Your task to perform on an android device: turn on improve location accuracy Image 0: 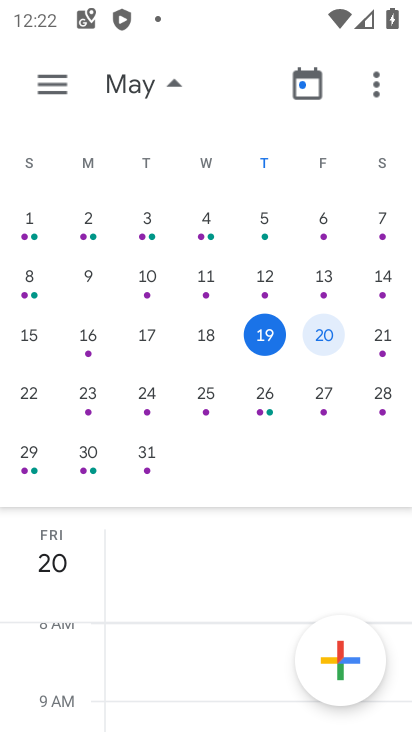
Step 0: press home button
Your task to perform on an android device: turn on improve location accuracy Image 1: 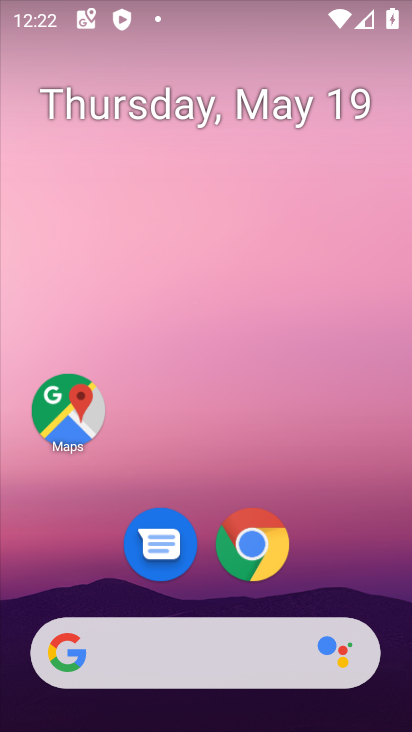
Step 1: drag from (325, 660) to (330, 228)
Your task to perform on an android device: turn on improve location accuracy Image 2: 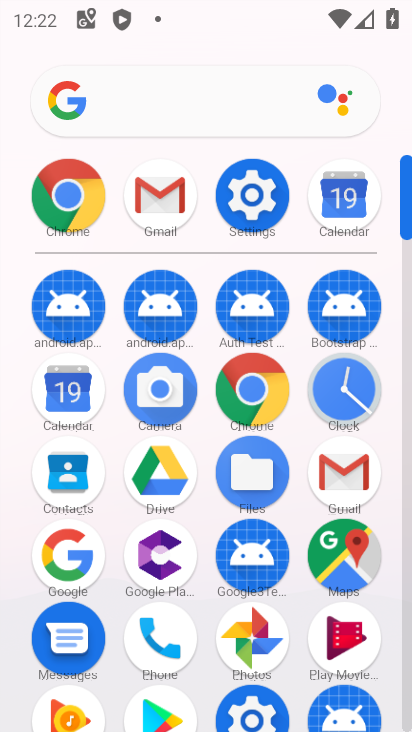
Step 2: click (248, 207)
Your task to perform on an android device: turn on improve location accuracy Image 3: 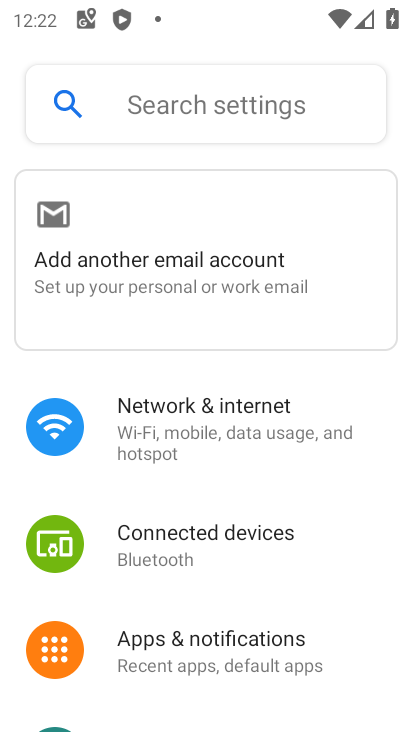
Step 3: drag from (247, 681) to (226, 214)
Your task to perform on an android device: turn on improve location accuracy Image 4: 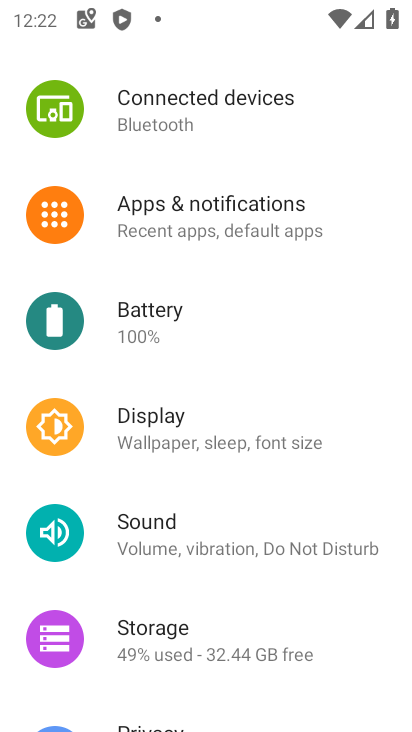
Step 4: drag from (180, 684) to (222, 268)
Your task to perform on an android device: turn on improve location accuracy Image 5: 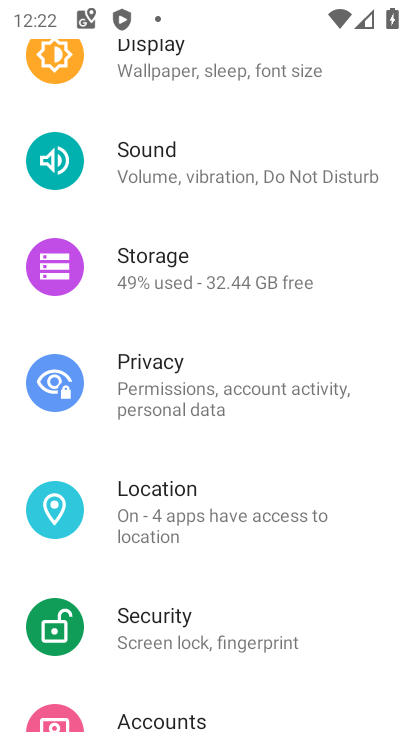
Step 5: drag from (217, 647) to (222, 263)
Your task to perform on an android device: turn on improve location accuracy Image 6: 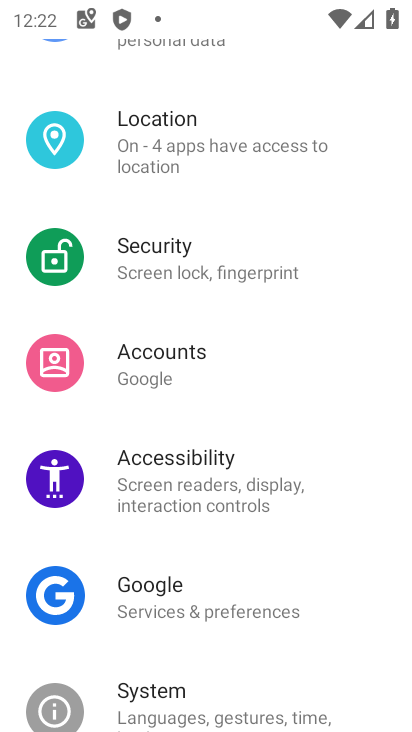
Step 6: drag from (238, 620) to (264, 292)
Your task to perform on an android device: turn on improve location accuracy Image 7: 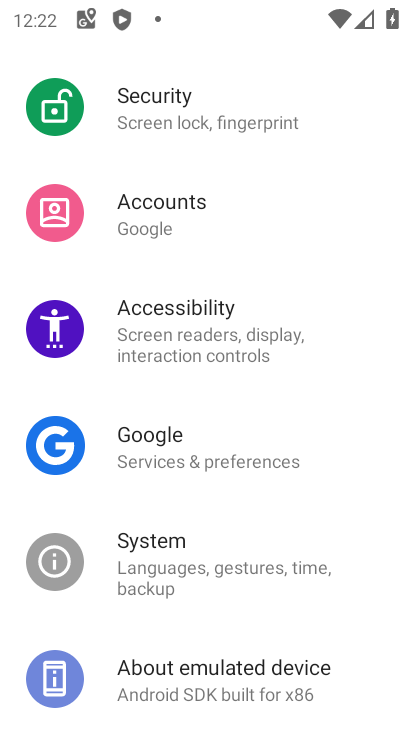
Step 7: drag from (208, 662) to (238, 475)
Your task to perform on an android device: turn on improve location accuracy Image 8: 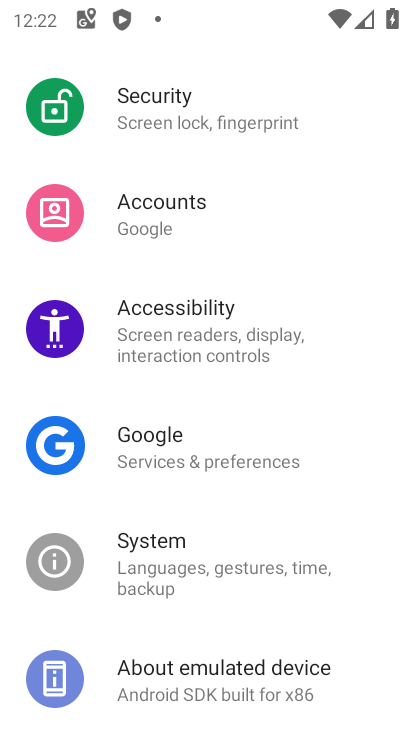
Step 8: drag from (240, 490) to (243, 530)
Your task to perform on an android device: turn on improve location accuracy Image 9: 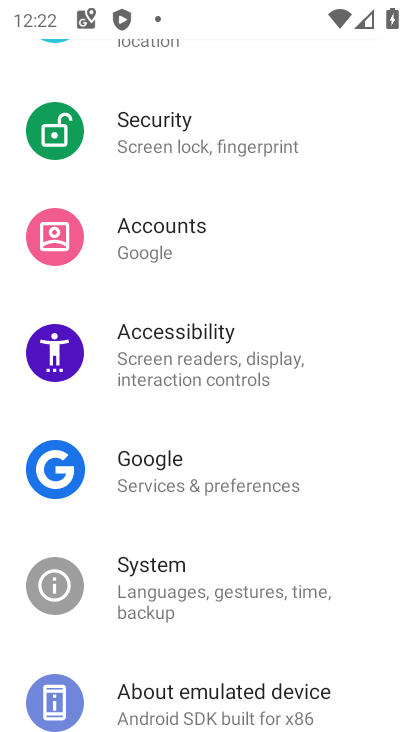
Step 9: drag from (222, 702) to (251, 496)
Your task to perform on an android device: turn on improve location accuracy Image 10: 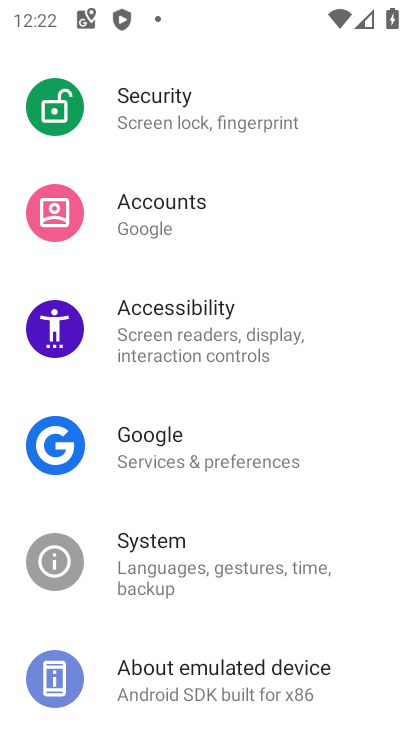
Step 10: drag from (268, 291) to (242, 688)
Your task to perform on an android device: turn on improve location accuracy Image 11: 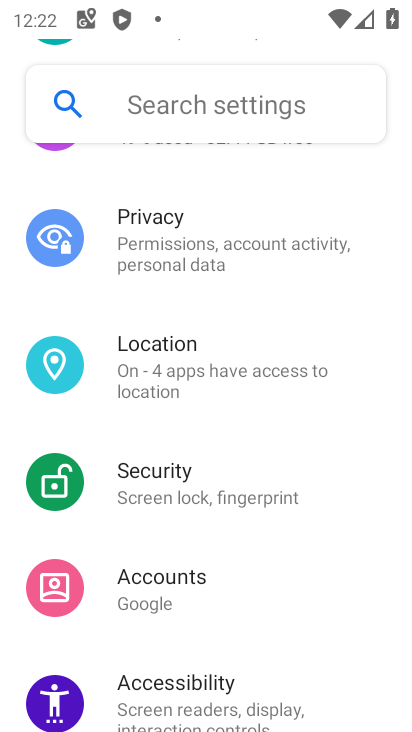
Step 11: click (195, 373)
Your task to perform on an android device: turn on improve location accuracy Image 12: 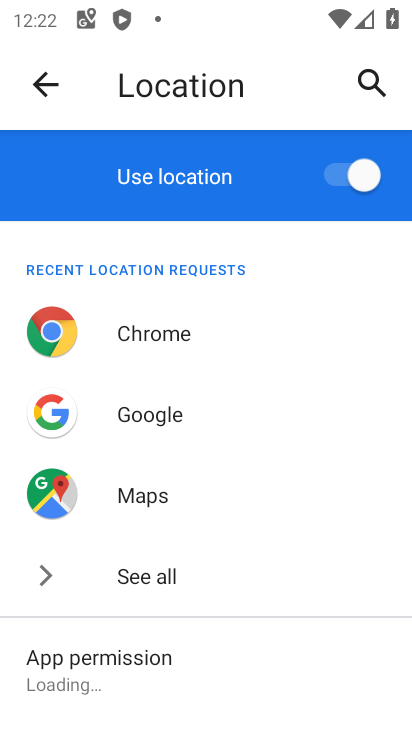
Step 12: drag from (269, 664) to (318, 249)
Your task to perform on an android device: turn on improve location accuracy Image 13: 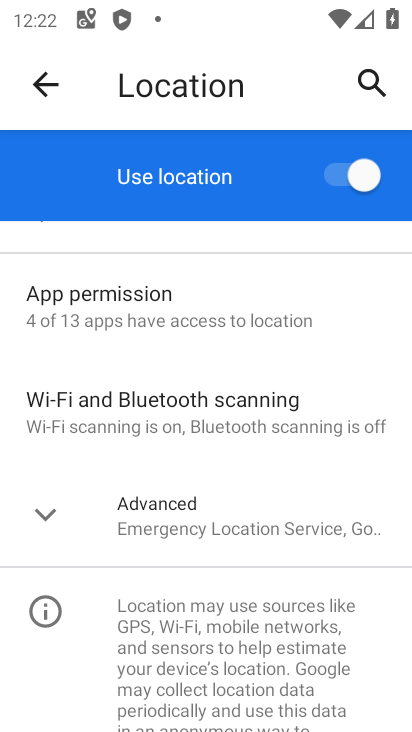
Step 13: click (276, 522)
Your task to perform on an android device: turn on improve location accuracy Image 14: 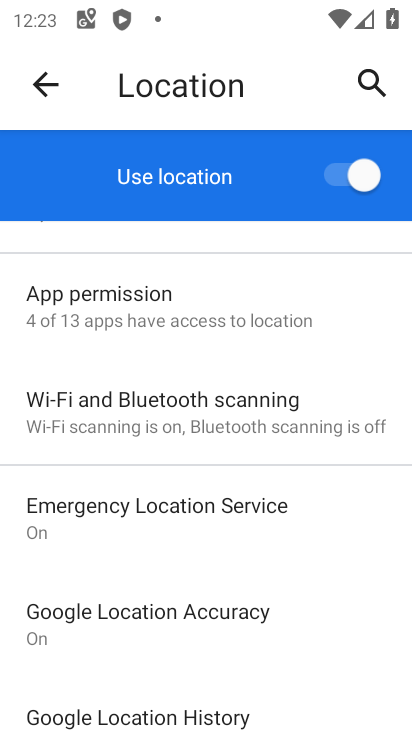
Step 14: click (252, 622)
Your task to perform on an android device: turn on improve location accuracy Image 15: 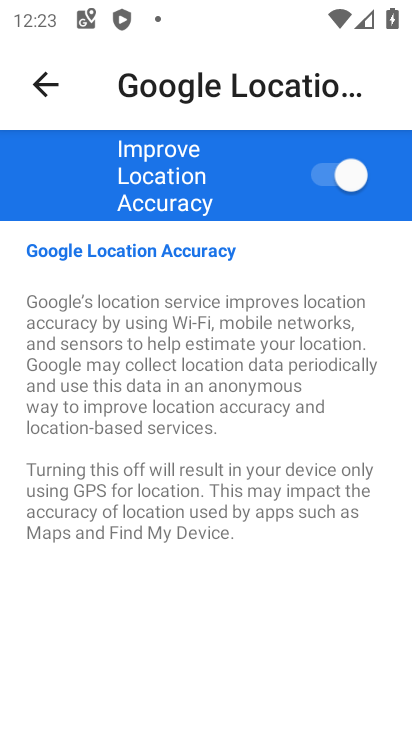
Step 15: task complete